Your task to perform on an android device: Add "usb-b" to the cart on newegg.com, then select checkout. Image 0: 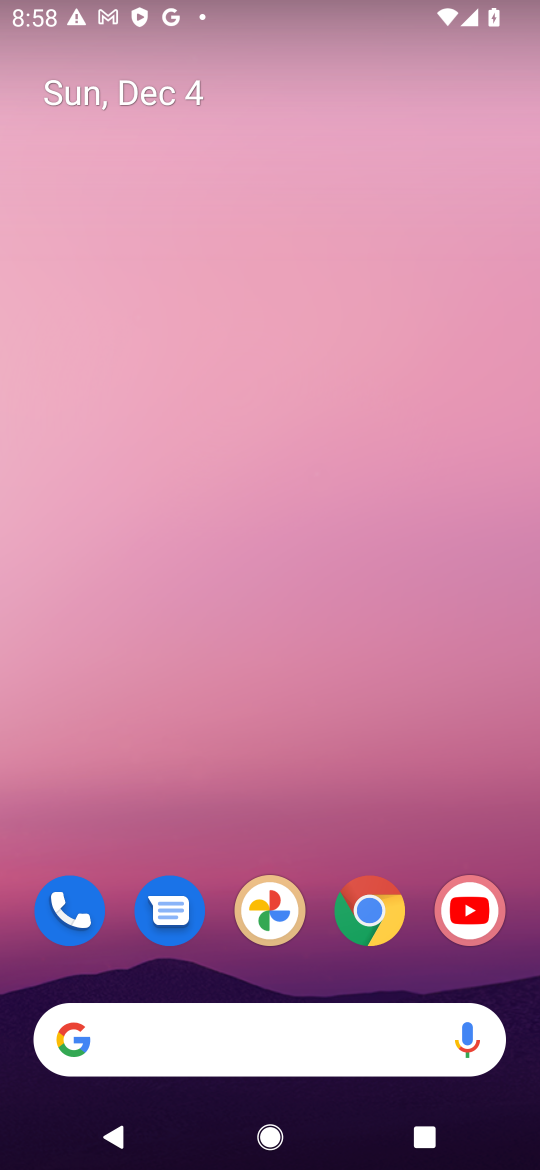
Step 0: drag from (336, 1112) to (336, 63)
Your task to perform on an android device: Add "usb-b" to the cart on newegg.com, then select checkout. Image 1: 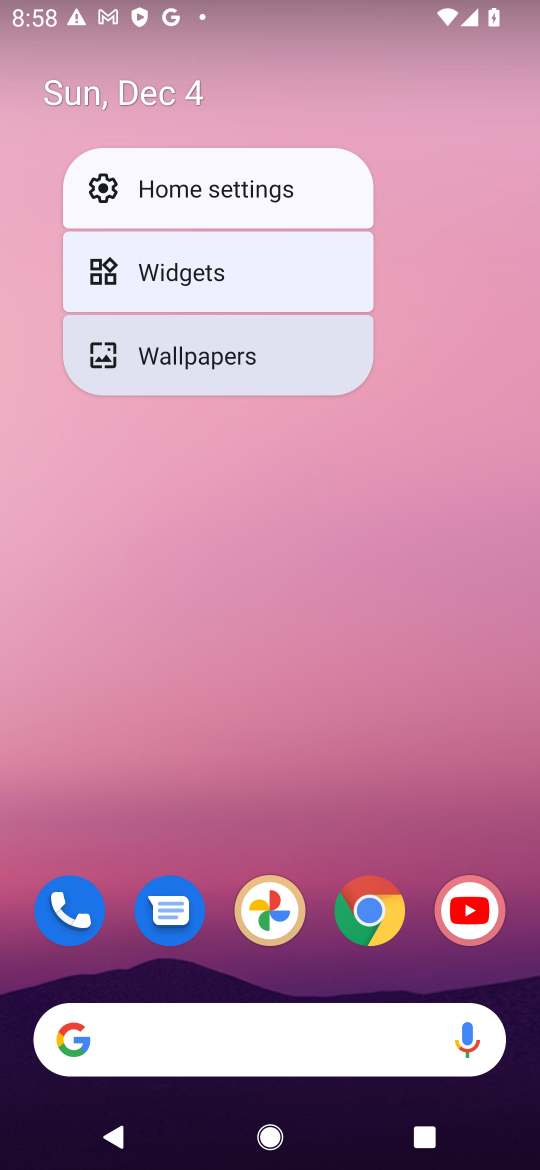
Step 1: click (323, 676)
Your task to perform on an android device: Add "usb-b" to the cart on newegg.com, then select checkout. Image 2: 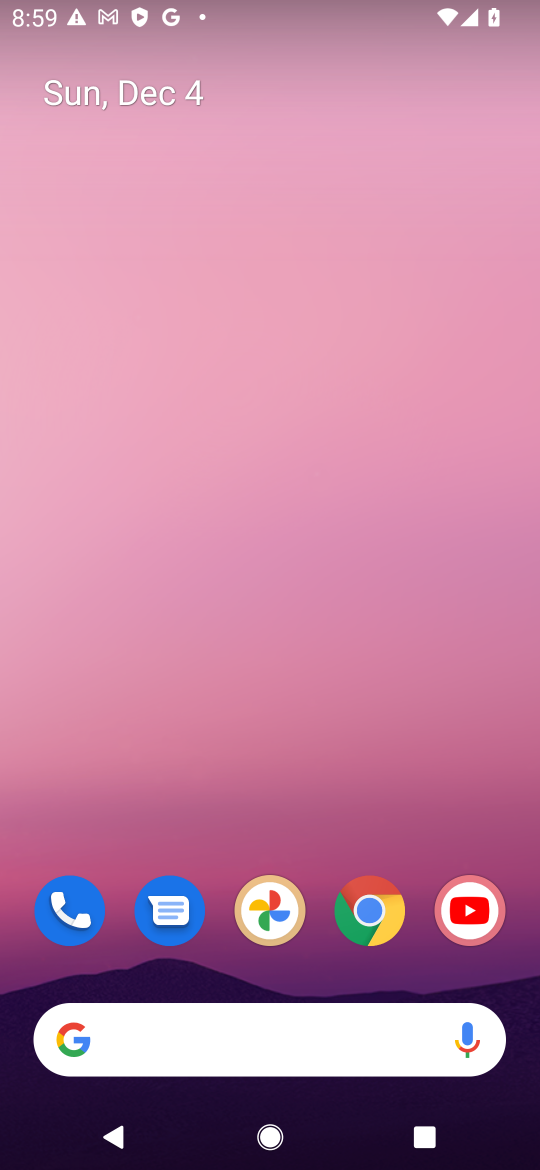
Step 2: drag from (335, 1126) to (353, 13)
Your task to perform on an android device: Add "usb-b" to the cart on newegg.com, then select checkout. Image 3: 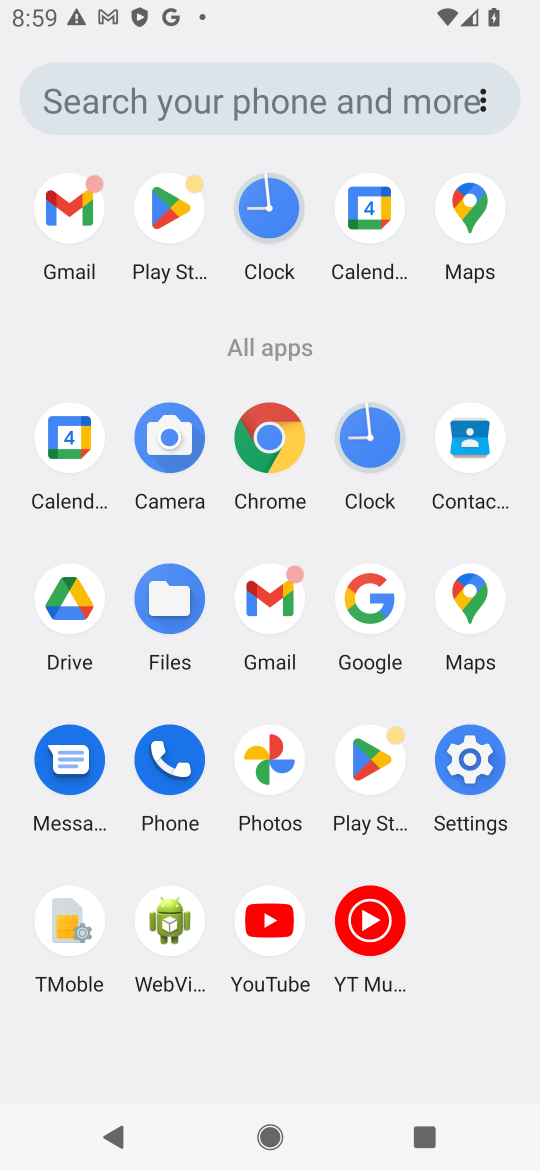
Step 3: click (265, 435)
Your task to perform on an android device: Add "usb-b" to the cart on newegg.com, then select checkout. Image 4: 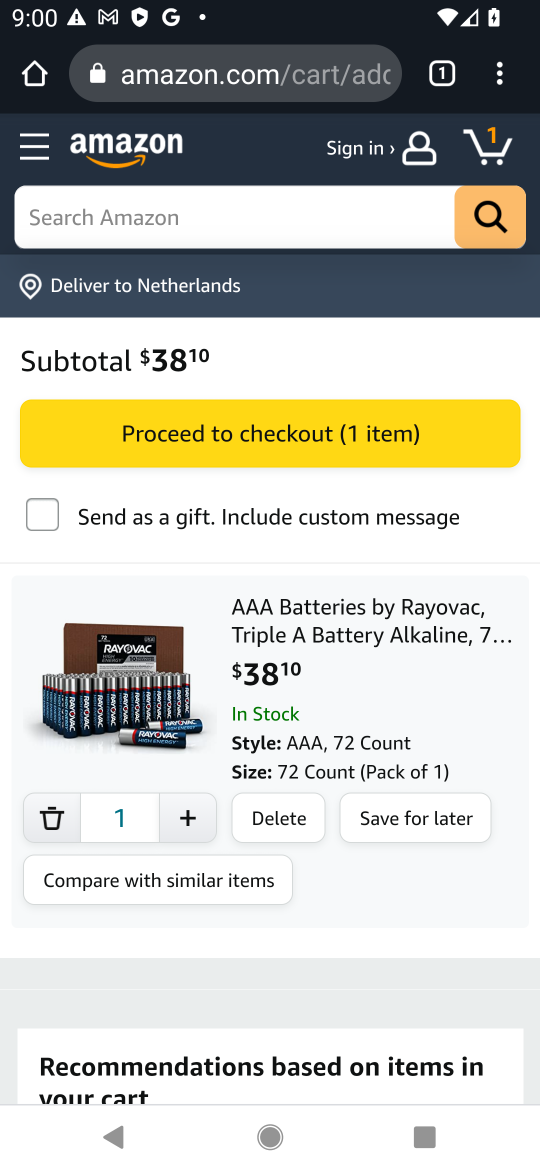
Step 4: click (173, 224)
Your task to perform on an android device: Add "usb-b" to the cart on newegg.com, then select checkout. Image 5: 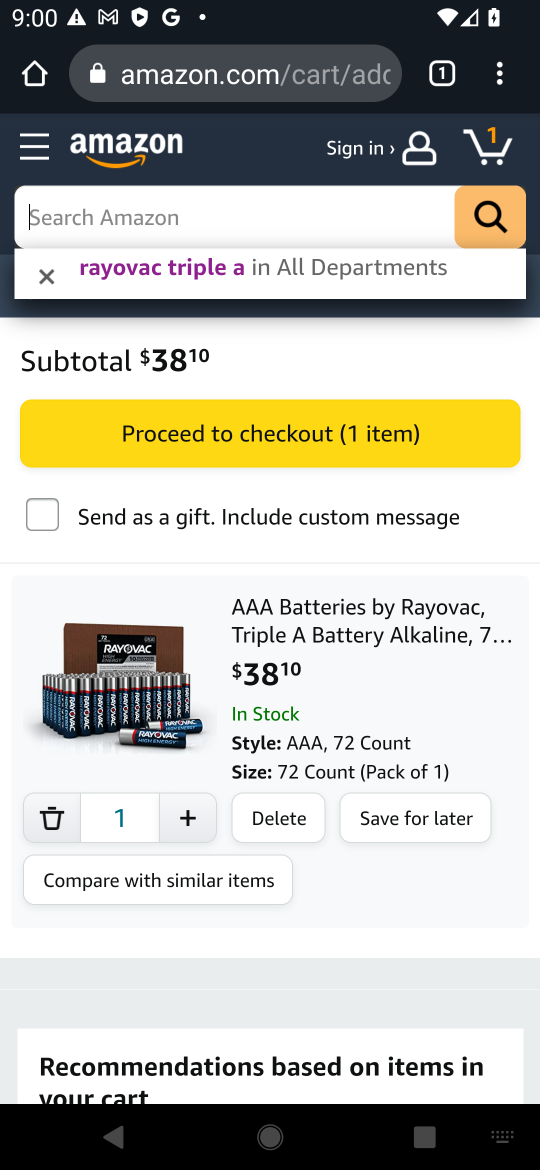
Step 5: click (241, 79)
Your task to perform on an android device: Add "usb-b" to the cart on newegg.com, then select checkout. Image 6: 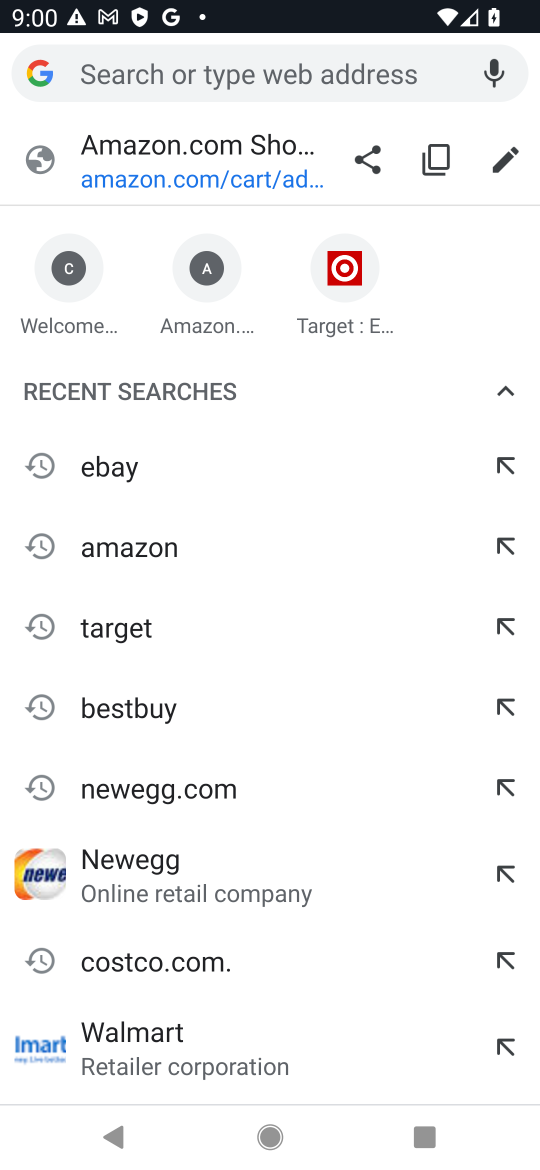
Step 6: type "newegg.com"
Your task to perform on an android device: Add "usb-b" to the cart on newegg.com, then select checkout. Image 7: 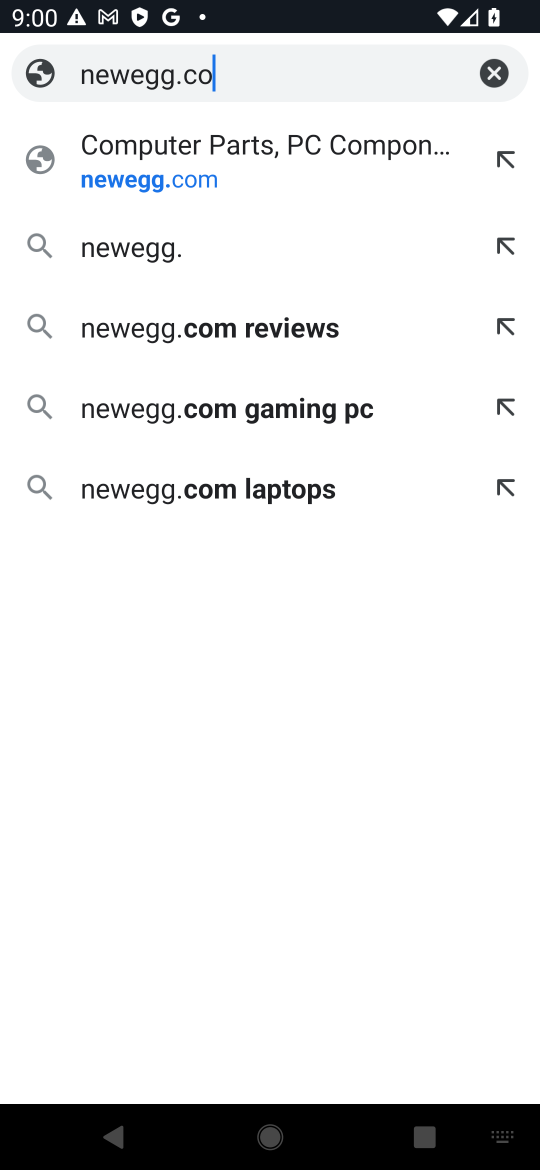
Step 7: type ""
Your task to perform on an android device: Add "usb-b" to the cart on newegg.com, then select checkout. Image 8: 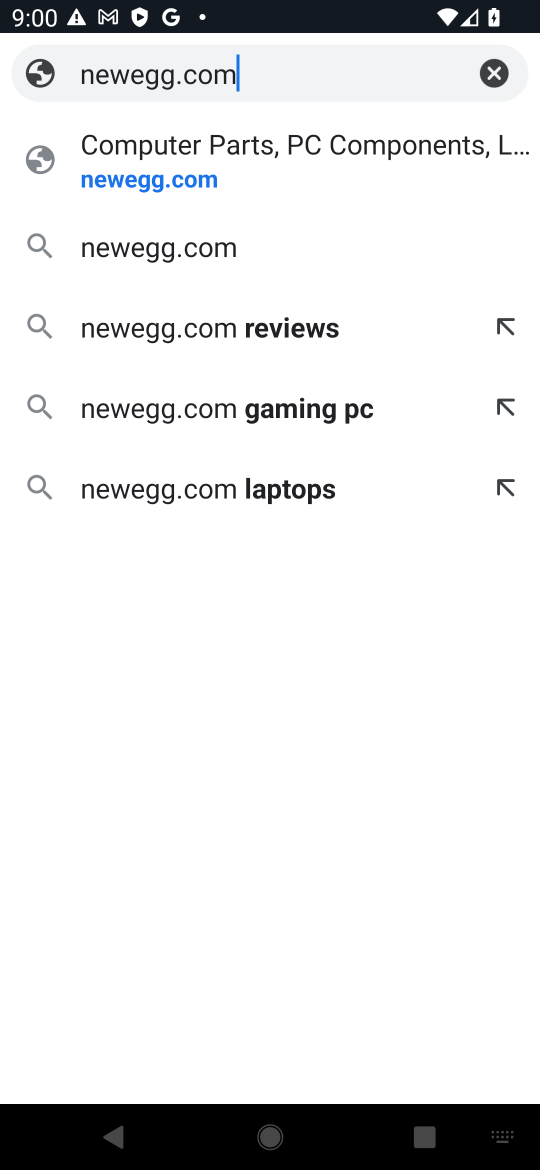
Step 8: click (125, 179)
Your task to perform on an android device: Add "usb-b" to the cart on newegg.com, then select checkout. Image 9: 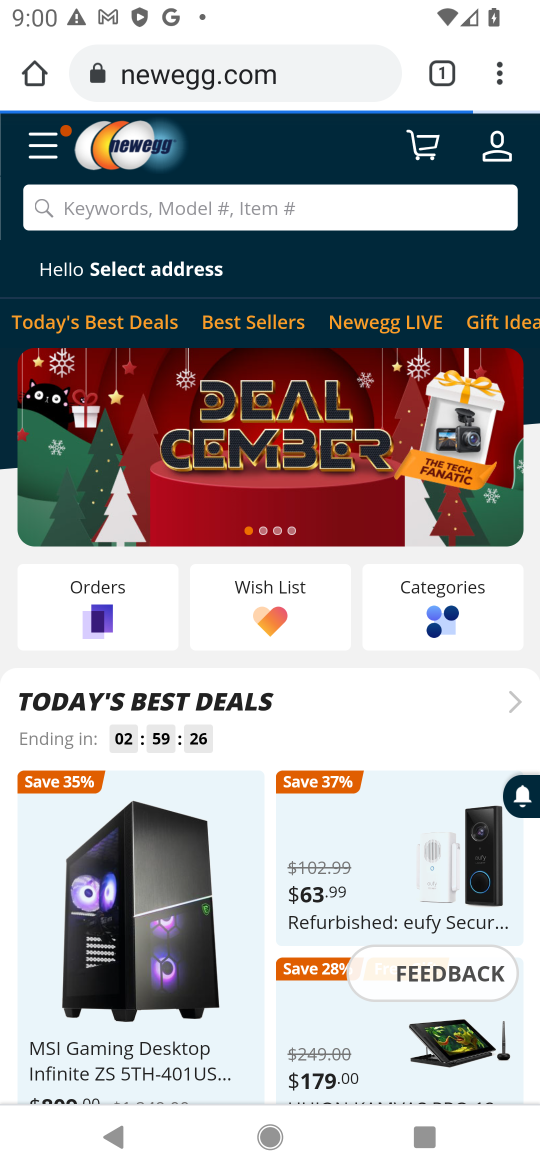
Step 9: click (85, 200)
Your task to perform on an android device: Add "usb-b" to the cart on newegg.com, then select checkout. Image 10: 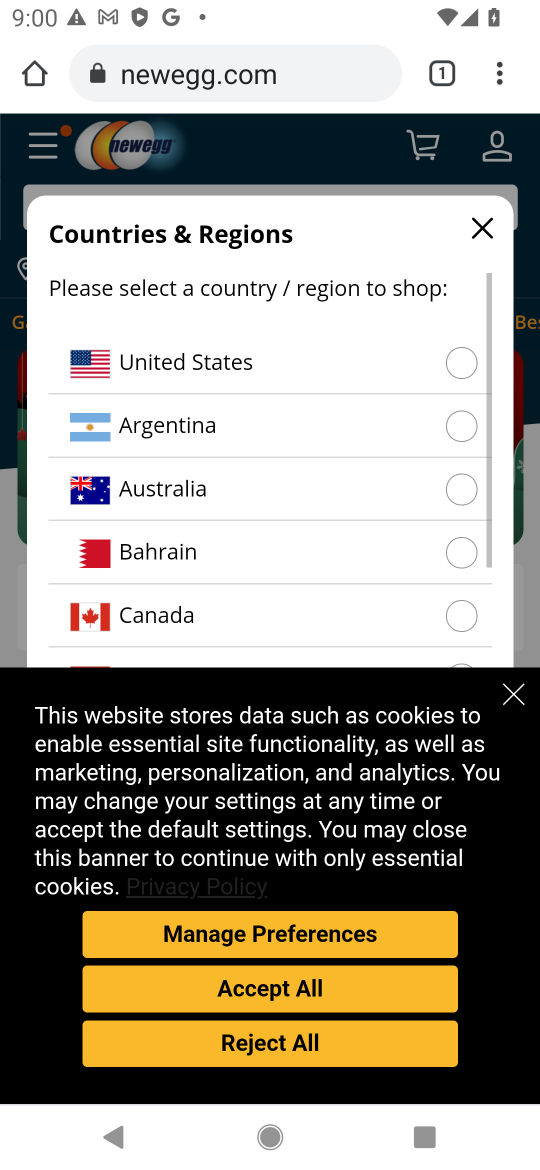
Step 10: click (255, 981)
Your task to perform on an android device: Add "usb-b" to the cart on newegg.com, then select checkout. Image 11: 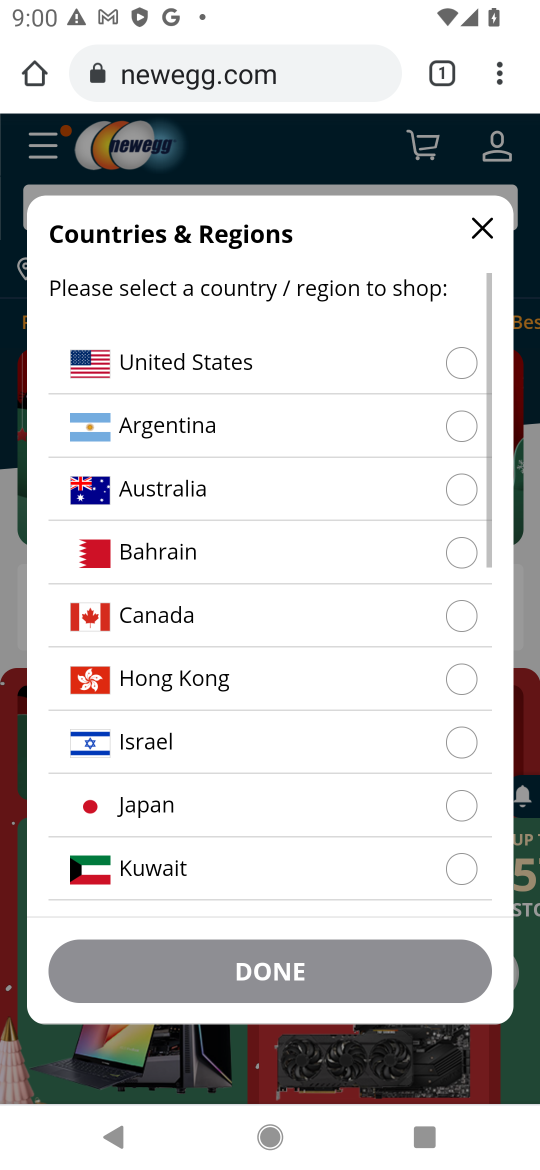
Step 11: click (482, 226)
Your task to perform on an android device: Add "usb-b" to the cart on newegg.com, then select checkout. Image 12: 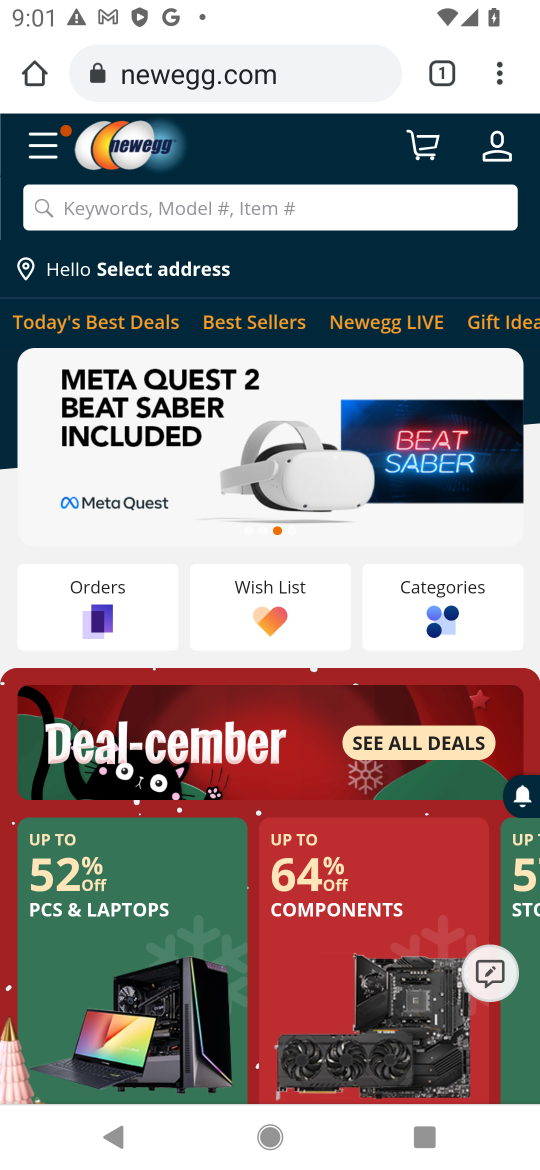
Step 12: click (286, 205)
Your task to perform on an android device: Add "usb-b" to the cart on newegg.com, then select checkout. Image 13: 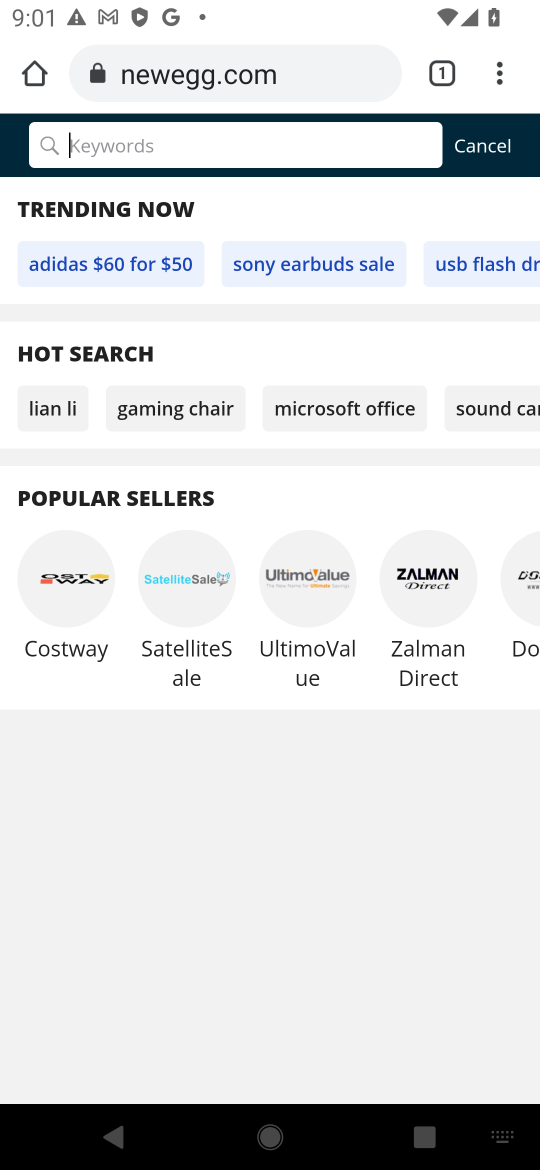
Step 13: type "usb-b"
Your task to perform on an android device: Add "usb-b" to the cart on newegg.com, then select checkout. Image 14: 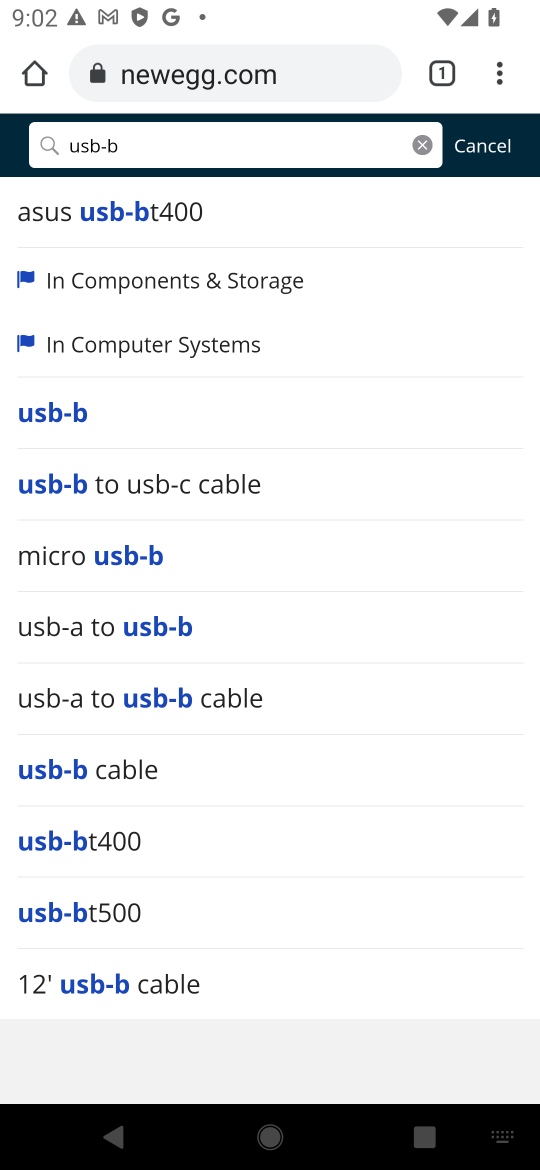
Step 14: click (36, 407)
Your task to perform on an android device: Add "usb-b" to the cart on newegg.com, then select checkout. Image 15: 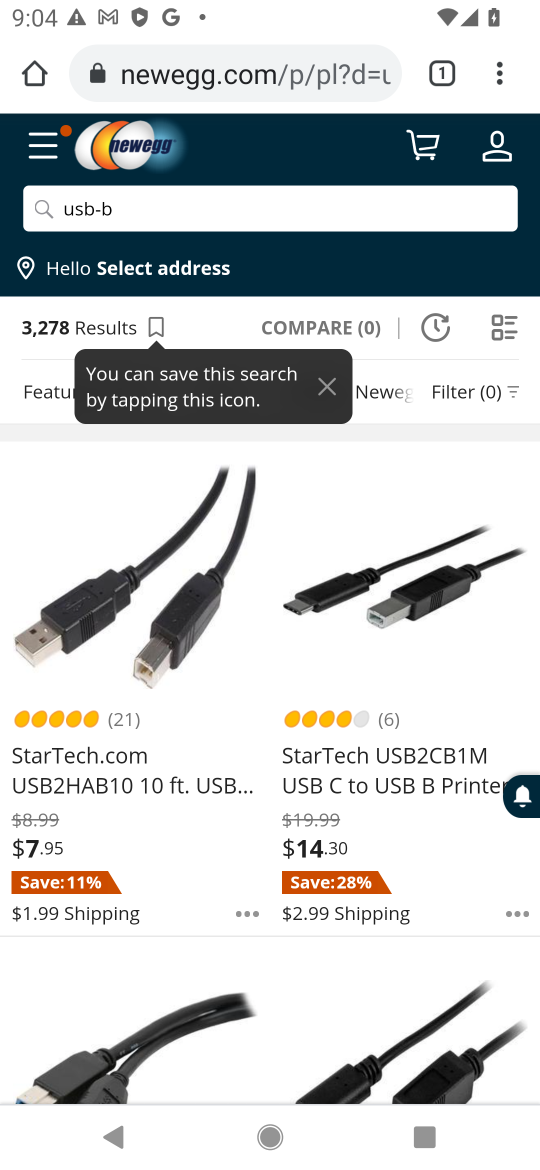
Step 15: click (120, 577)
Your task to perform on an android device: Add "usb-b" to the cart on newegg.com, then select checkout. Image 16: 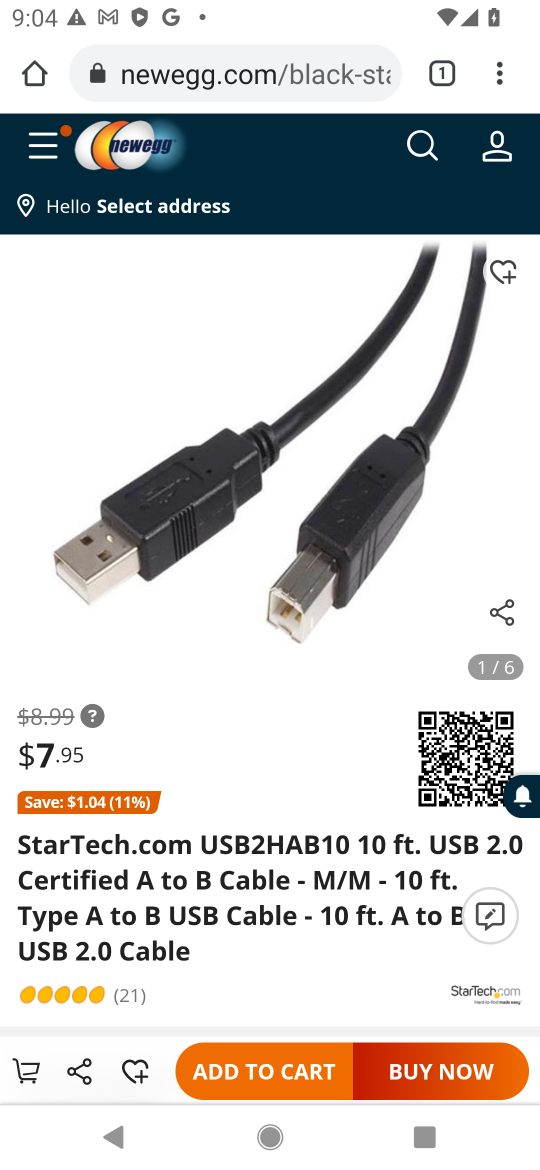
Step 16: click (241, 1076)
Your task to perform on an android device: Add "usb-b" to the cart on newegg.com, then select checkout. Image 17: 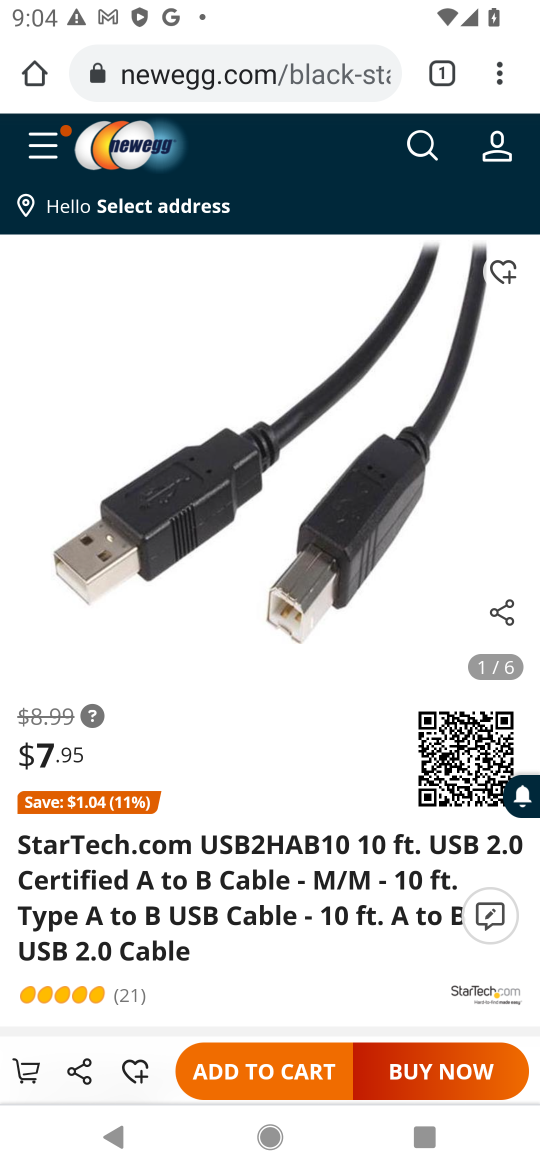
Step 17: click (248, 1068)
Your task to perform on an android device: Add "usb-b" to the cart on newegg.com, then select checkout. Image 18: 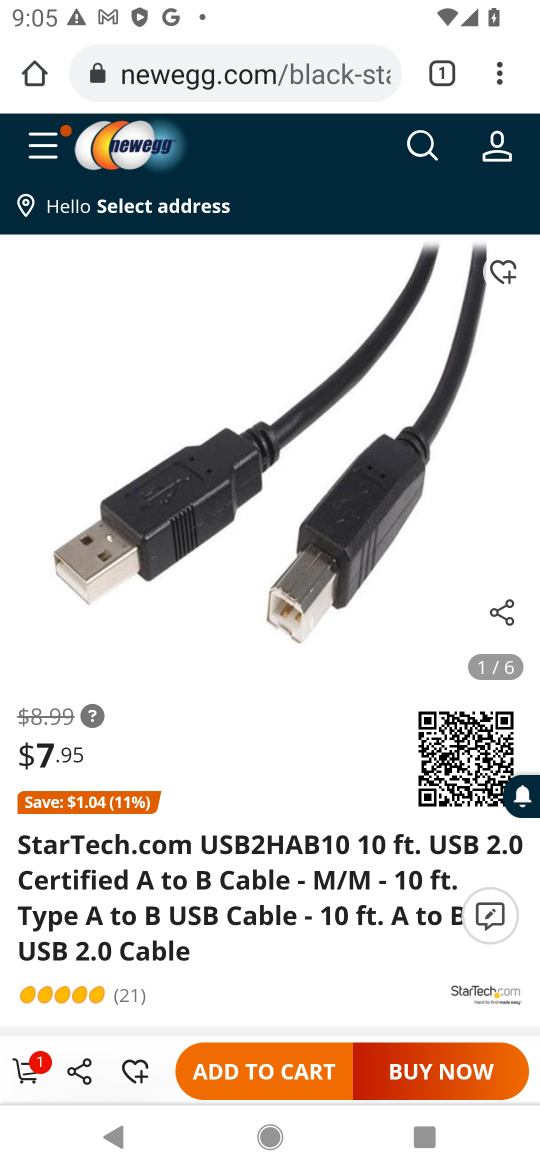
Step 18: click (254, 1069)
Your task to perform on an android device: Add "usb-b" to the cart on newegg.com, then select checkout. Image 19: 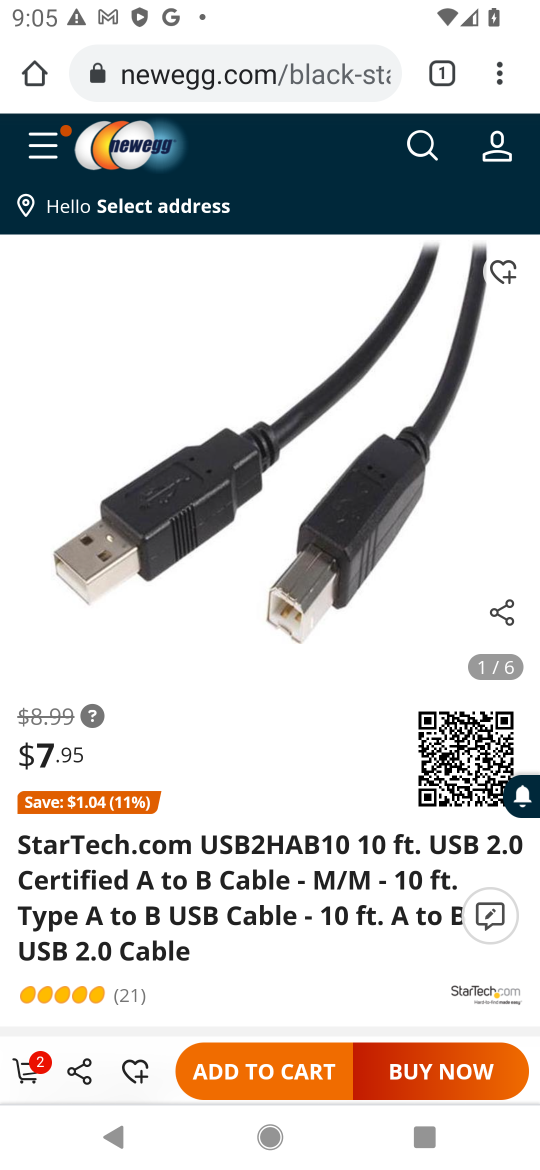
Step 19: click (250, 1074)
Your task to perform on an android device: Add "usb-b" to the cart on newegg.com, then select checkout. Image 20: 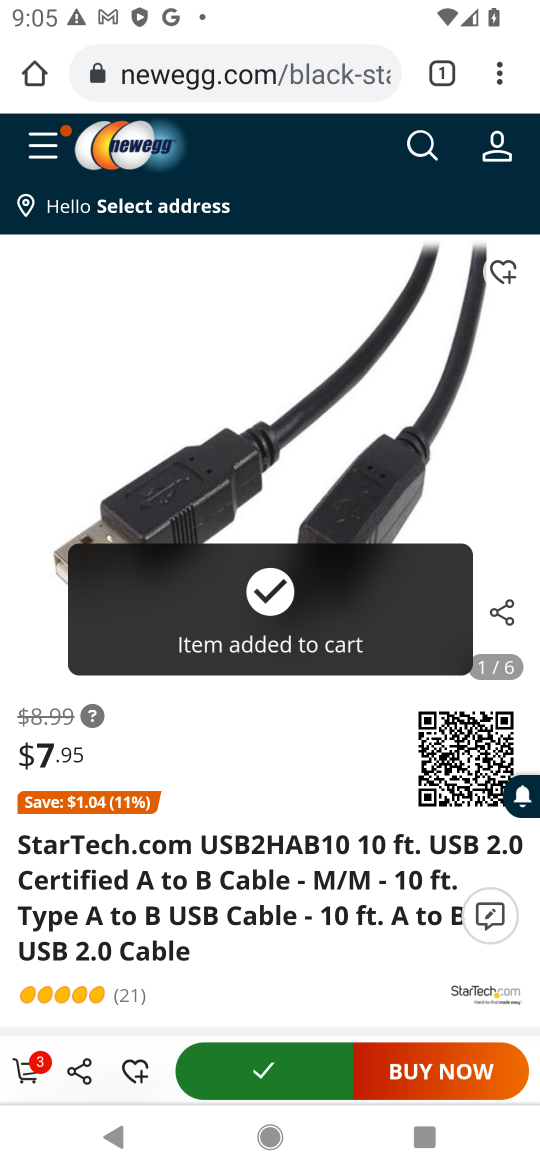
Step 20: task complete